Your task to perform on an android device: toggle data saver in the chrome app Image 0: 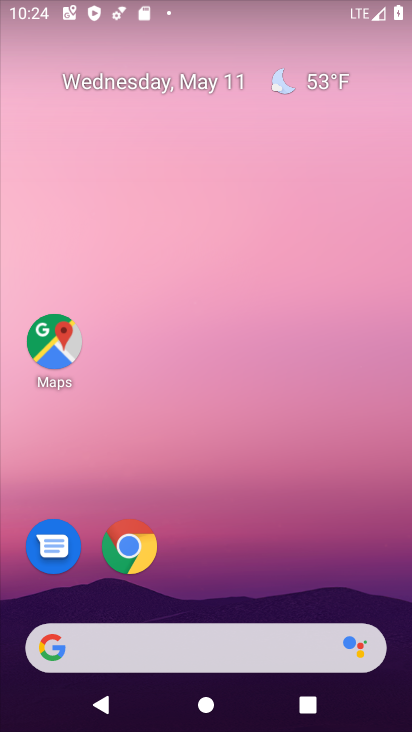
Step 0: drag from (390, 607) to (301, 108)
Your task to perform on an android device: toggle data saver in the chrome app Image 1: 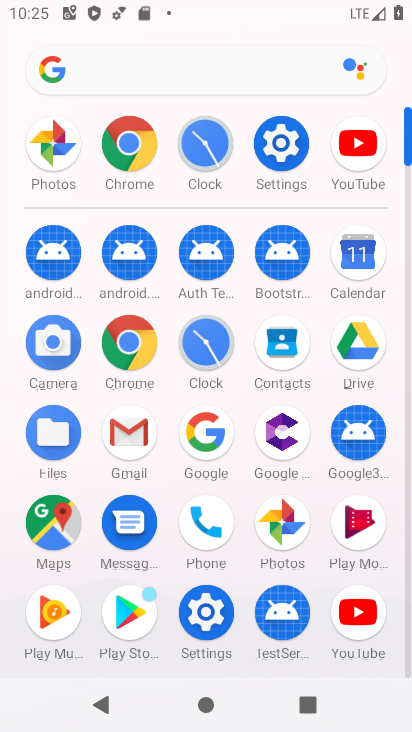
Step 1: click (125, 349)
Your task to perform on an android device: toggle data saver in the chrome app Image 2: 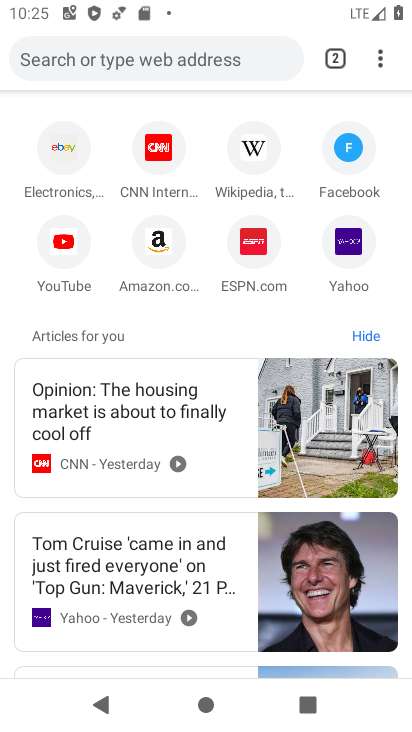
Step 2: click (382, 54)
Your task to perform on an android device: toggle data saver in the chrome app Image 3: 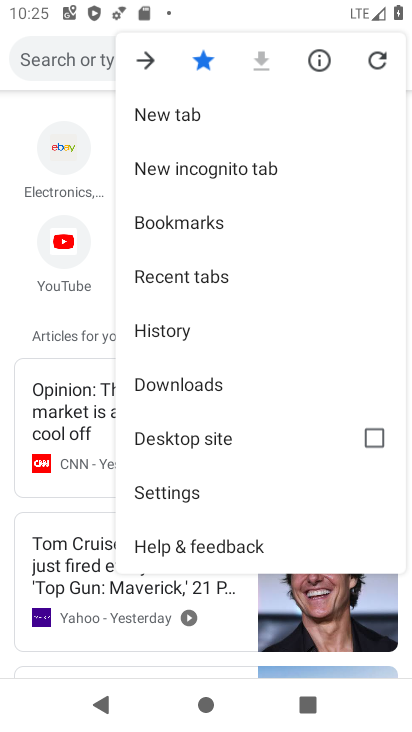
Step 3: click (200, 502)
Your task to perform on an android device: toggle data saver in the chrome app Image 4: 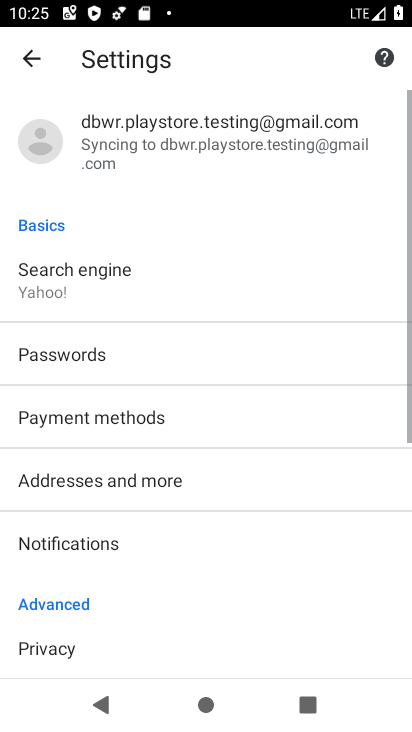
Step 4: drag from (132, 593) to (172, 154)
Your task to perform on an android device: toggle data saver in the chrome app Image 5: 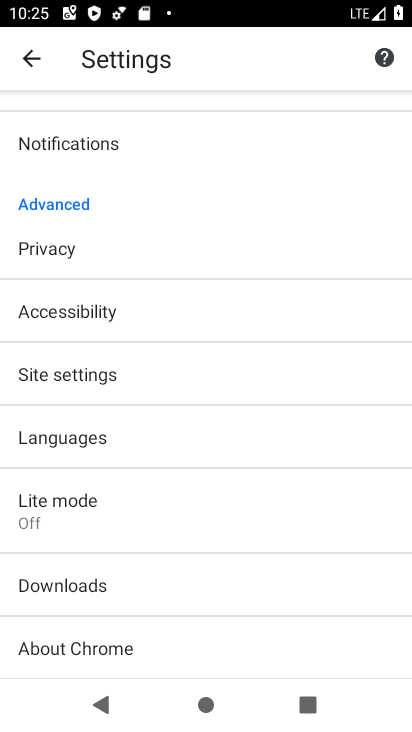
Step 5: click (128, 507)
Your task to perform on an android device: toggle data saver in the chrome app Image 6: 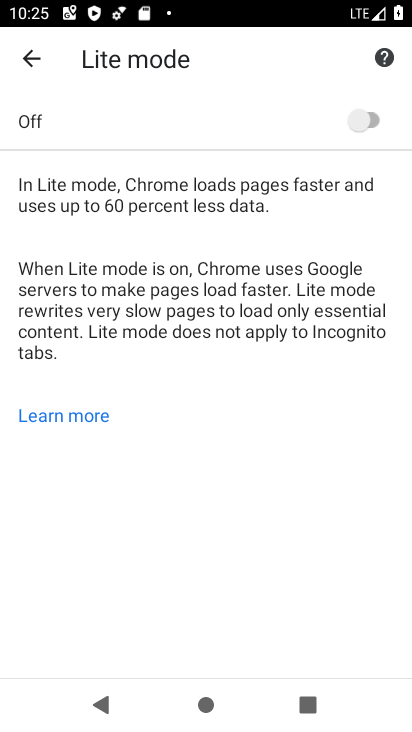
Step 6: click (352, 127)
Your task to perform on an android device: toggle data saver in the chrome app Image 7: 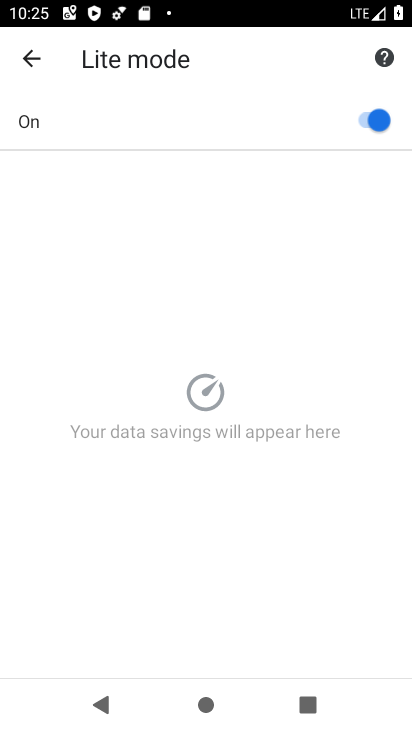
Step 7: task complete